Your task to perform on an android device: change notification settings in the gmail app Image 0: 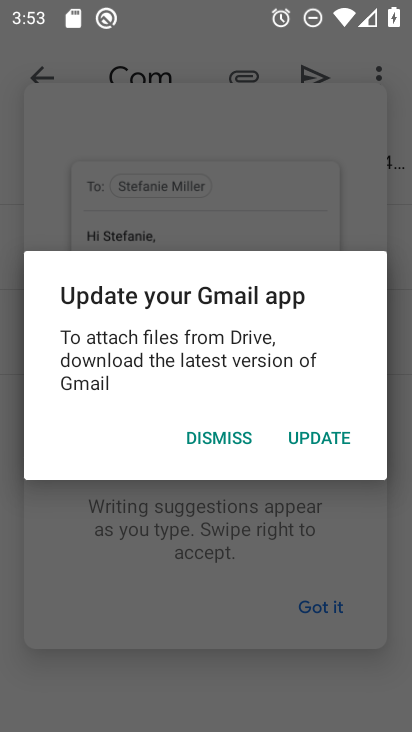
Step 0: press home button
Your task to perform on an android device: change notification settings in the gmail app Image 1: 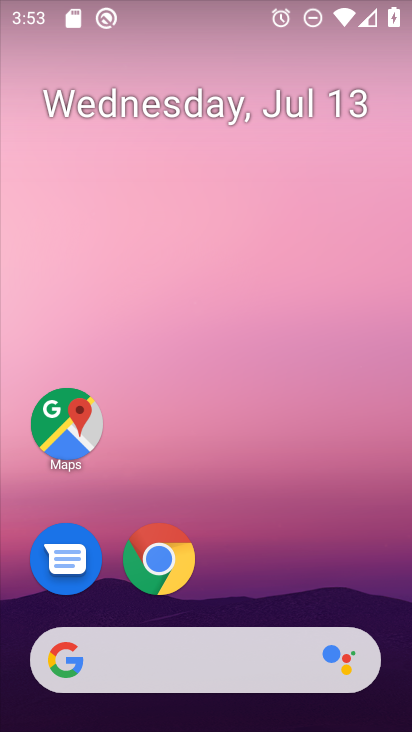
Step 1: drag from (346, 579) to (383, 129)
Your task to perform on an android device: change notification settings in the gmail app Image 2: 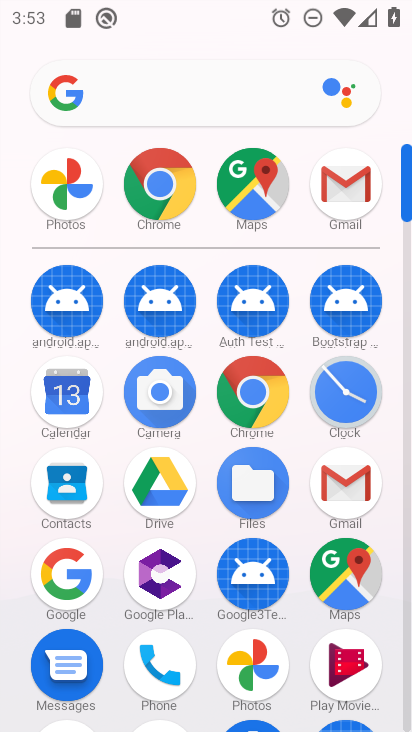
Step 2: click (350, 486)
Your task to perform on an android device: change notification settings in the gmail app Image 3: 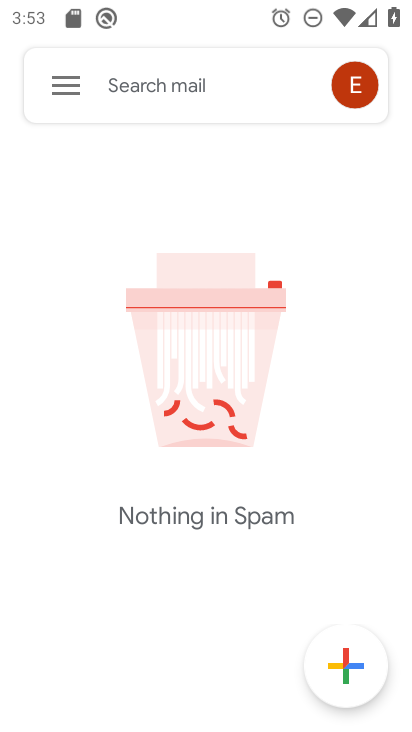
Step 3: click (68, 85)
Your task to perform on an android device: change notification settings in the gmail app Image 4: 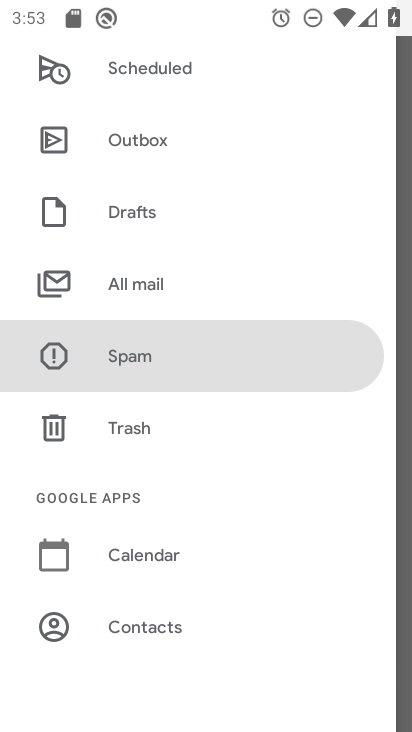
Step 4: drag from (251, 224) to (257, 311)
Your task to perform on an android device: change notification settings in the gmail app Image 5: 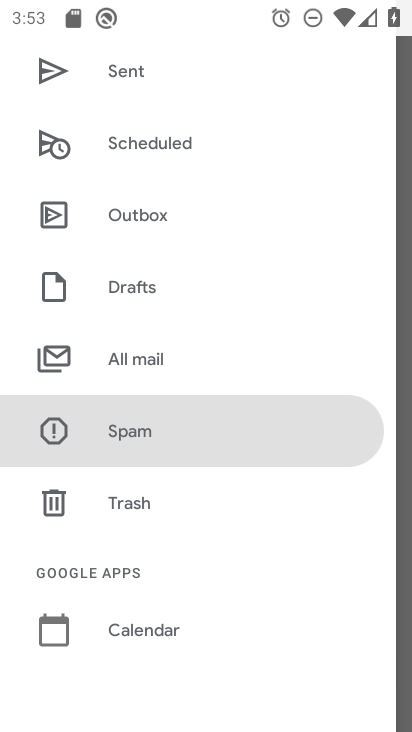
Step 5: drag from (277, 239) to (289, 334)
Your task to perform on an android device: change notification settings in the gmail app Image 6: 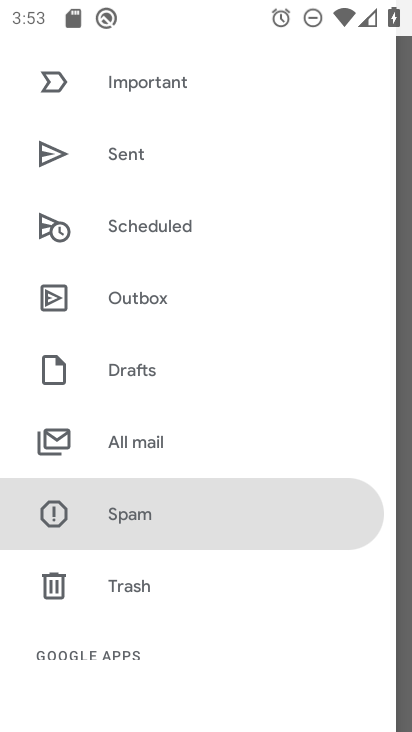
Step 6: drag from (295, 223) to (296, 339)
Your task to perform on an android device: change notification settings in the gmail app Image 7: 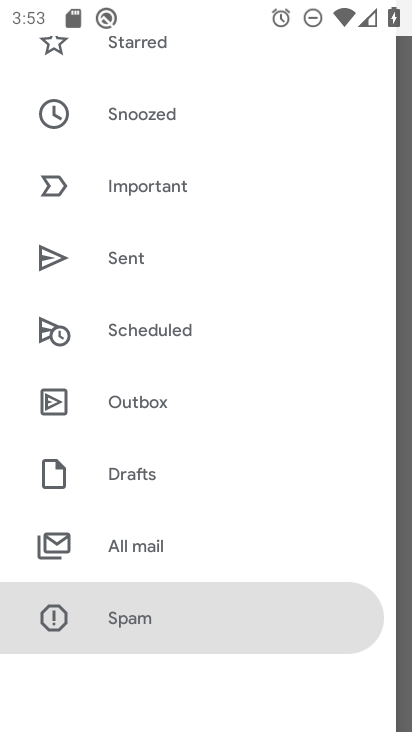
Step 7: drag from (284, 226) to (287, 347)
Your task to perform on an android device: change notification settings in the gmail app Image 8: 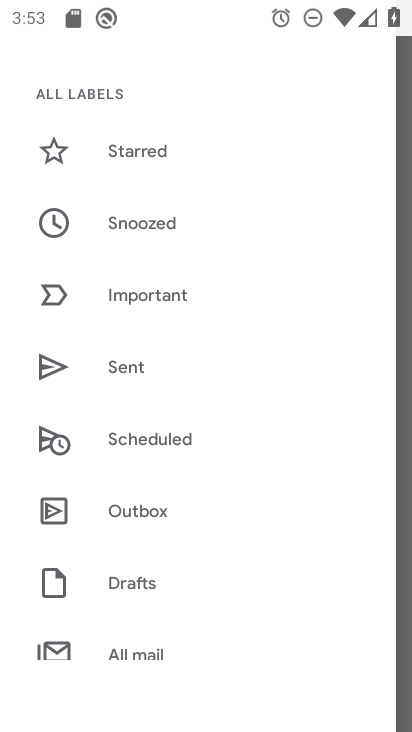
Step 8: drag from (280, 200) to (302, 472)
Your task to perform on an android device: change notification settings in the gmail app Image 9: 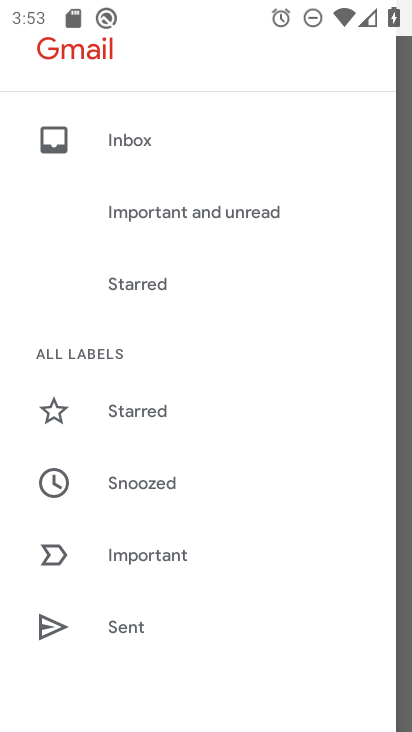
Step 9: drag from (306, 269) to (304, 424)
Your task to perform on an android device: change notification settings in the gmail app Image 10: 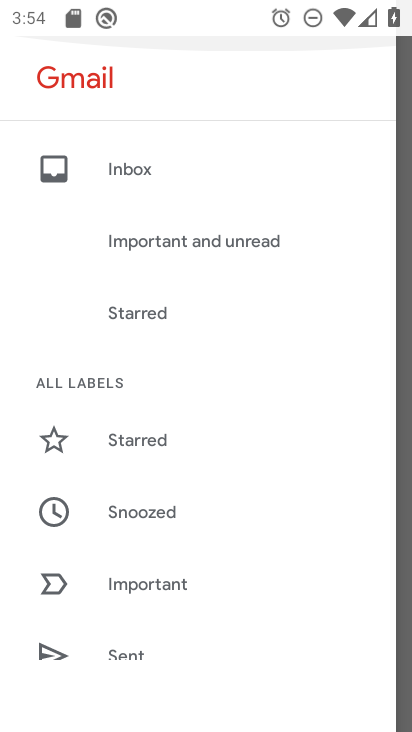
Step 10: drag from (303, 458) to (307, 356)
Your task to perform on an android device: change notification settings in the gmail app Image 11: 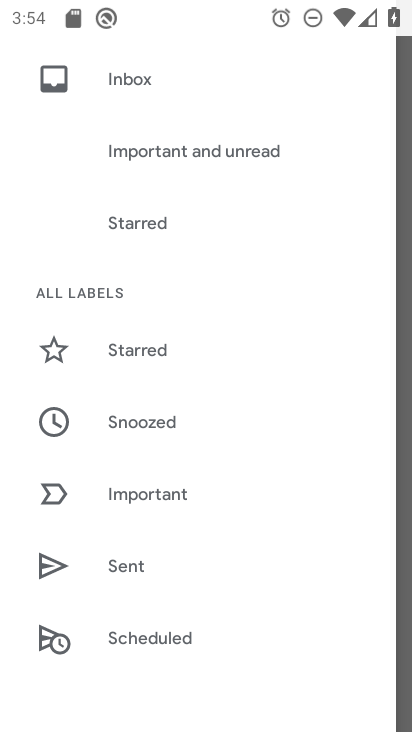
Step 11: drag from (294, 454) to (295, 360)
Your task to perform on an android device: change notification settings in the gmail app Image 12: 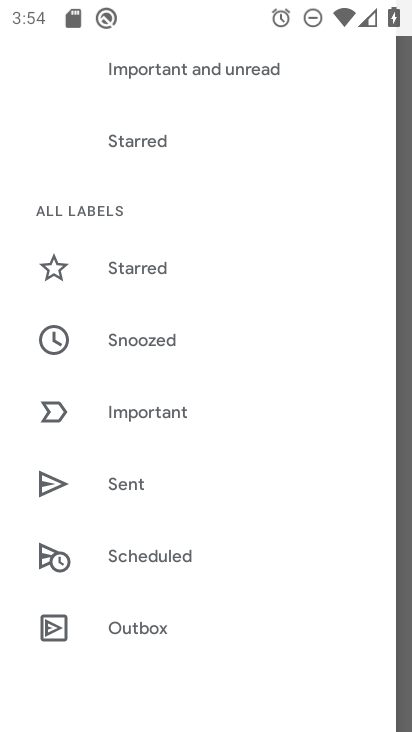
Step 12: drag from (285, 461) to (288, 323)
Your task to perform on an android device: change notification settings in the gmail app Image 13: 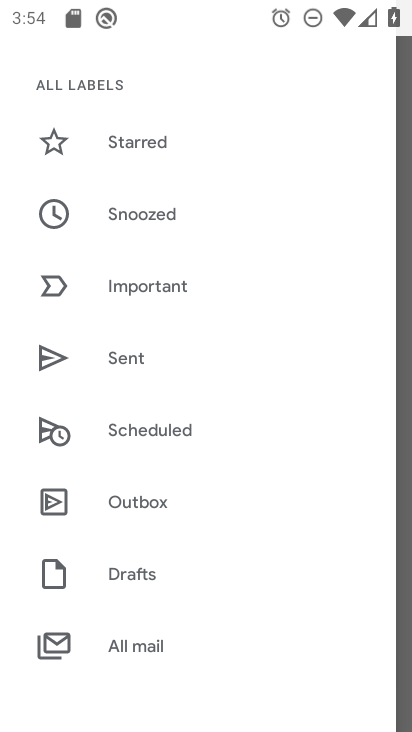
Step 13: drag from (296, 468) to (304, 372)
Your task to perform on an android device: change notification settings in the gmail app Image 14: 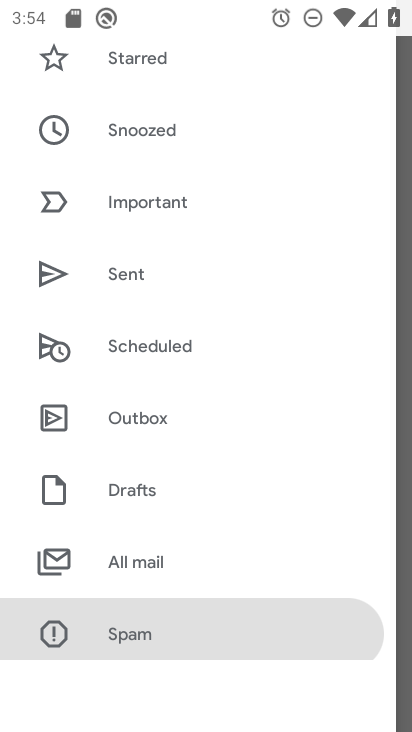
Step 14: drag from (302, 472) to (301, 334)
Your task to perform on an android device: change notification settings in the gmail app Image 15: 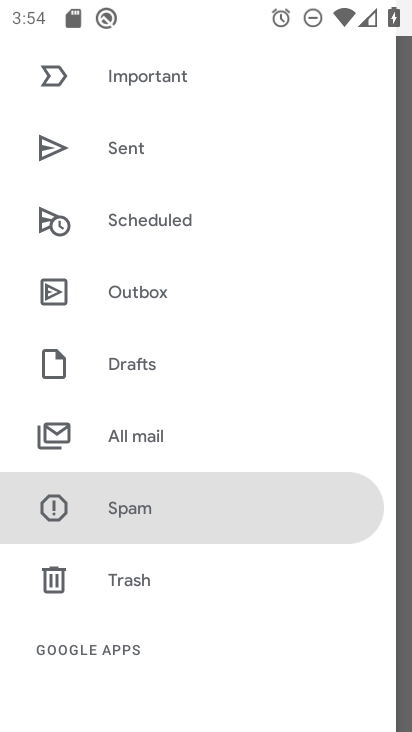
Step 15: drag from (279, 560) to (294, 384)
Your task to perform on an android device: change notification settings in the gmail app Image 16: 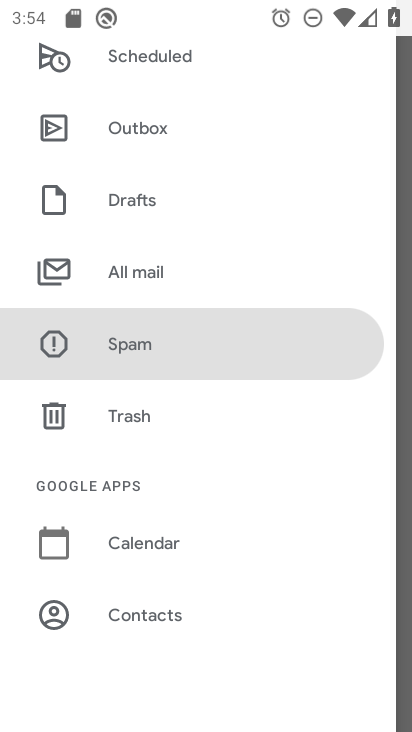
Step 16: drag from (282, 526) to (295, 265)
Your task to perform on an android device: change notification settings in the gmail app Image 17: 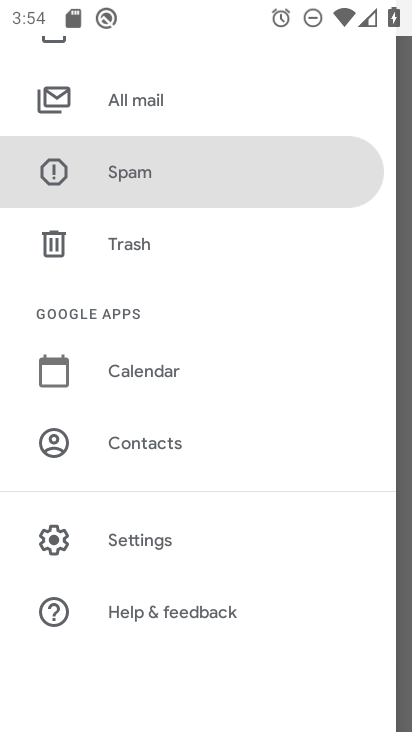
Step 17: click (178, 547)
Your task to perform on an android device: change notification settings in the gmail app Image 18: 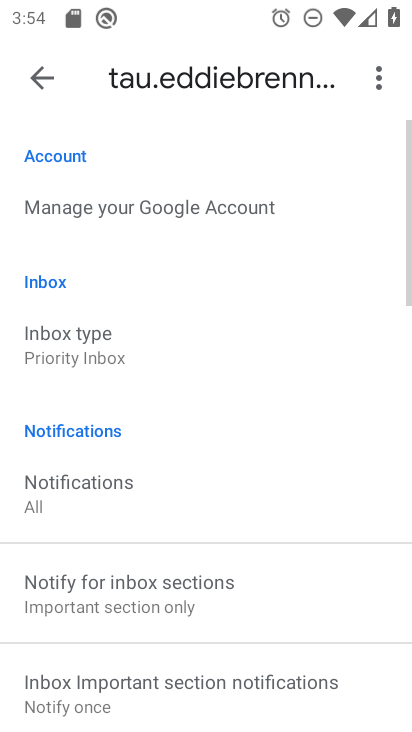
Step 18: drag from (316, 467) to (321, 336)
Your task to perform on an android device: change notification settings in the gmail app Image 19: 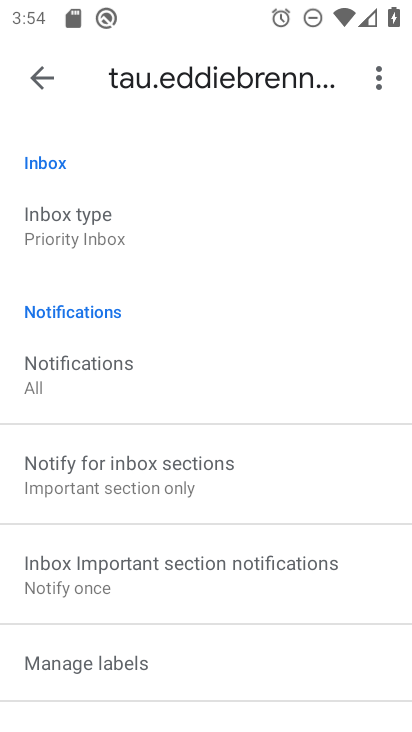
Step 19: drag from (319, 488) to (319, 372)
Your task to perform on an android device: change notification settings in the gmail app Image 20: 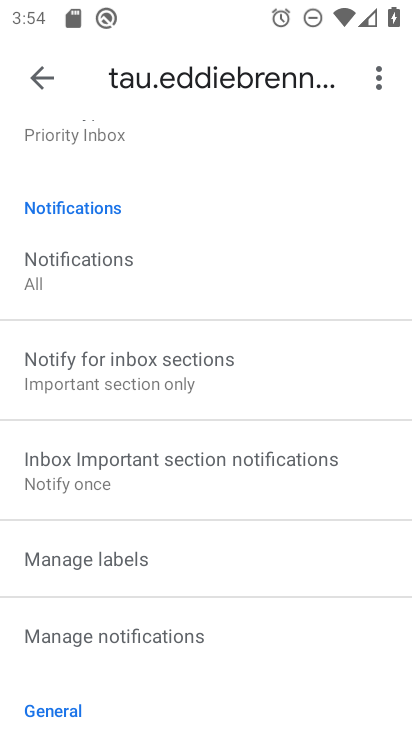
Step 20: drag from (321, 524) to (325, 397)
Your task to perform on an android device: change notification settings in the gmail app Image 21: 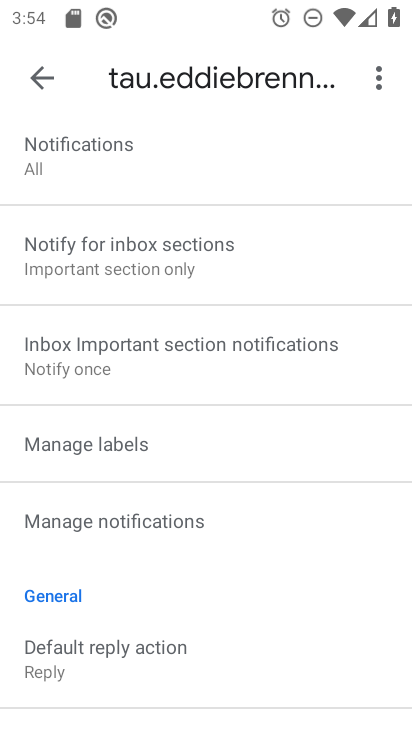
Step 21: drag from (331, 504) to (337, 408)
Your task to perform on an android device: change notification settings in the gmail app Image 22: 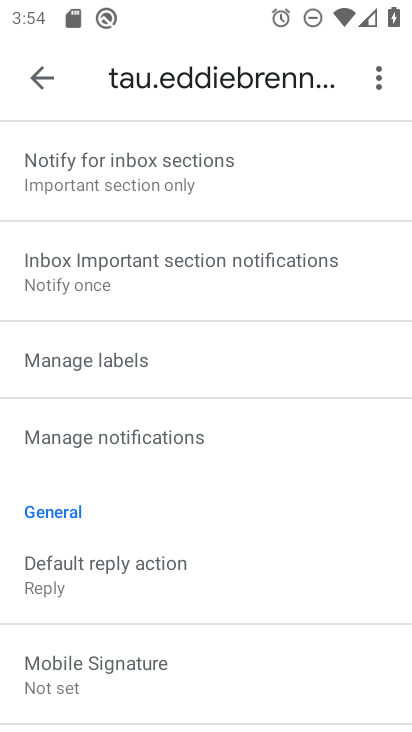
Step 22: drag from (328, 498) to (339, 420)
Your task to perform on an android device: change notification settings in the gmail app Image 23: 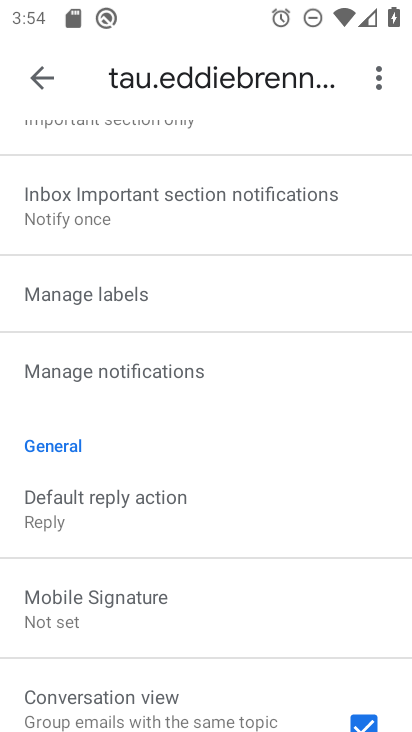
Step 23: drag from (202, 244) to (226, 373)
Your task to perform on an android device: change notification settings in the gmail app Image 24: 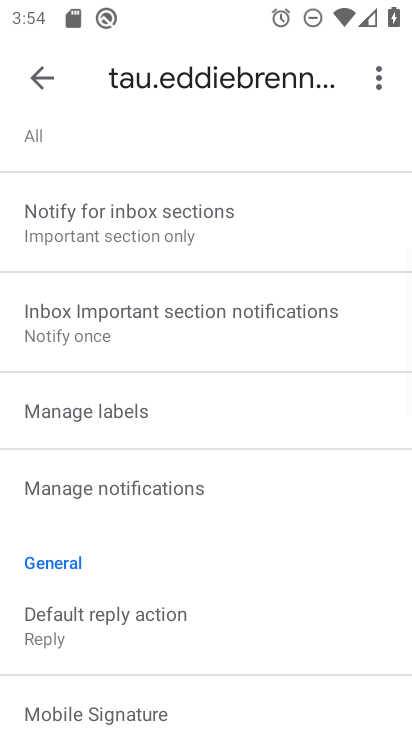
Step 24: drag from (230, 260) to (232, 388)
Your task to perform on an android device: change notification settings in the gmail app Image 25: 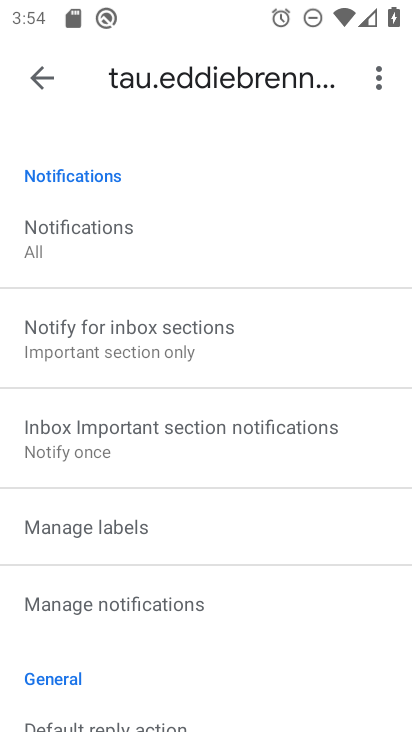
Step 25: click (147, 253)
Your task to perform on an android device: change notification settings in the gmail app Image 26: 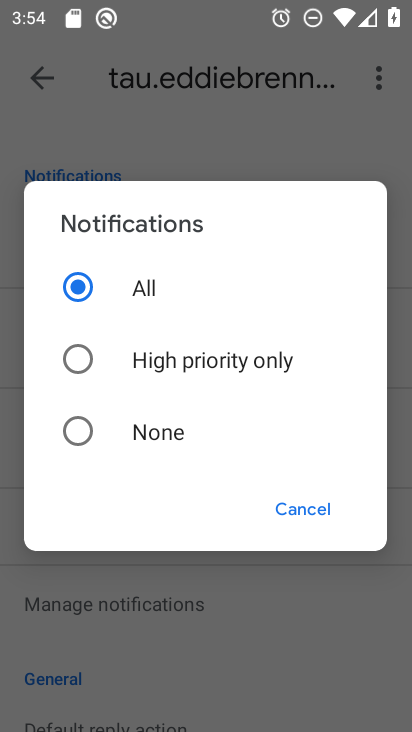
Step 26: click (171, 361)
Your task to perform on an android device: change notification settings in the gmail app Image 27: 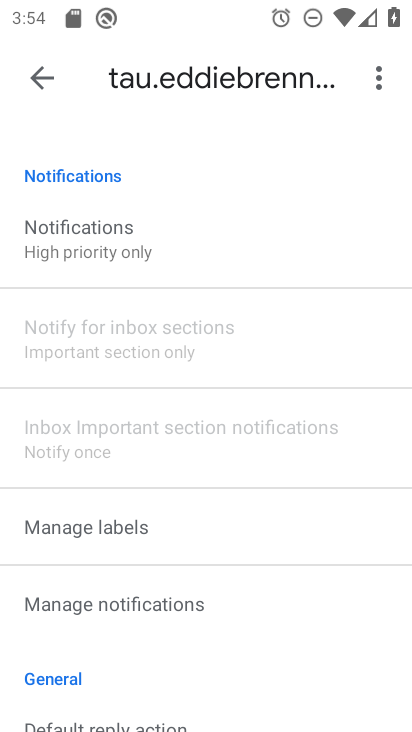
Step 27: task complete